Your task to perform on an android device: Open my contact list Image 0: 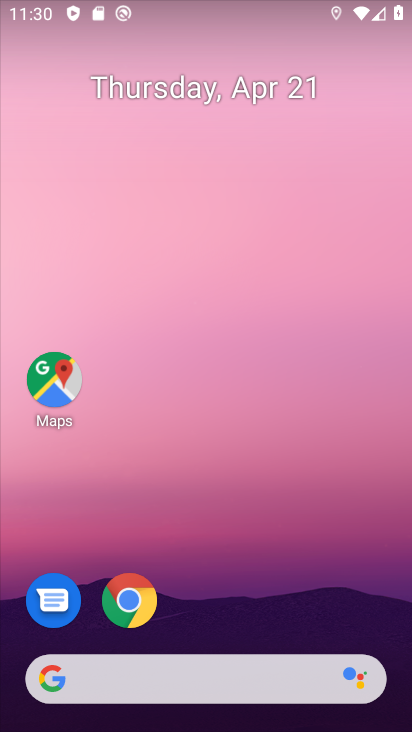
Step 0: drag from (271, 593) to (214, 0)
Your task to perform on an android device: Open my contact list Image 1: 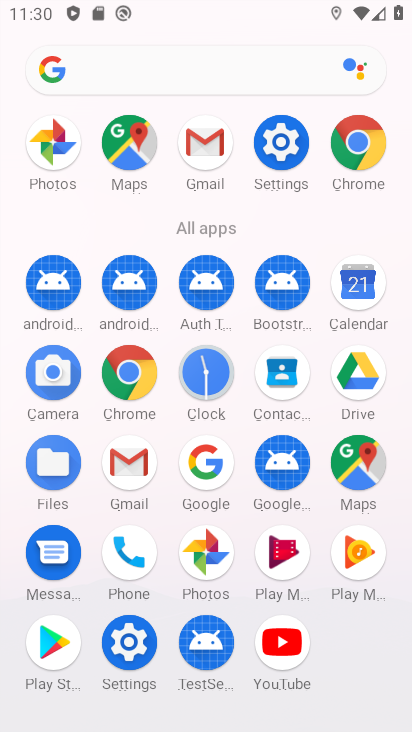
Step 1: click (277, 373)
Your task to perform on an android device: Open my contact list Image 2: 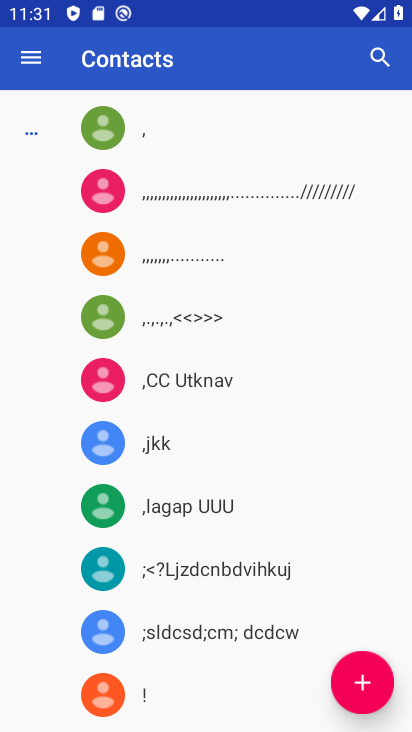
Step 2: task complete